Your task to perform on an android device: read, delete, or share a saved page in the chrome app Image 0: 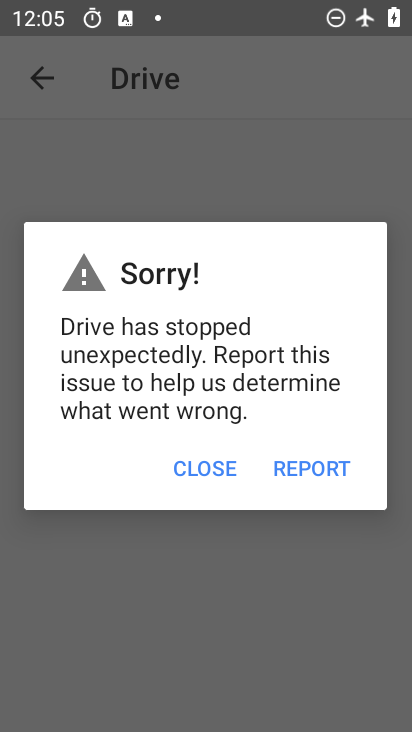
Step 0: press home button
Your task to perform on an android device: read, delete, or share a saved page in the chrome app Image 1: 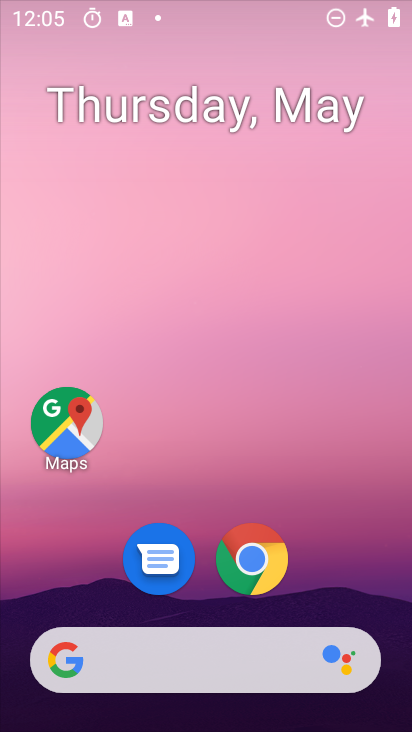
Step 1: drag from (178, 675) to (262, 303)
Your task to perform on an android device: read, delete, or share a saved page in the chrome app Image 2: 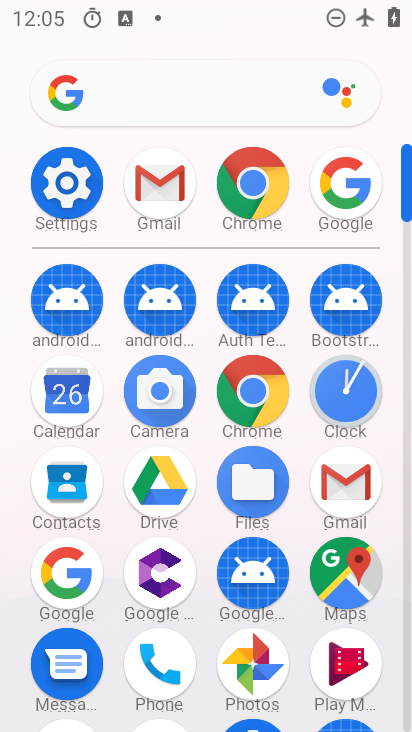
Step 2: click (256, 395)
Your task to perform on an android device: read, delete, or share a saved page in the chrome app Image 3: 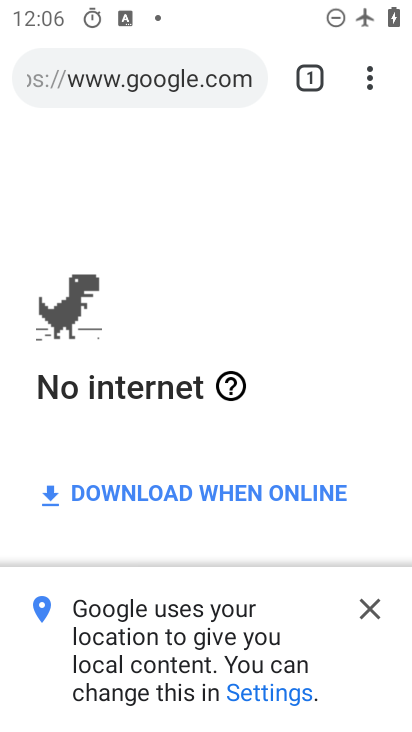
Step 3: click (373, 80)
Your task to perform on an android device: read, delete, or share a saved page in the chrome app Image 4: 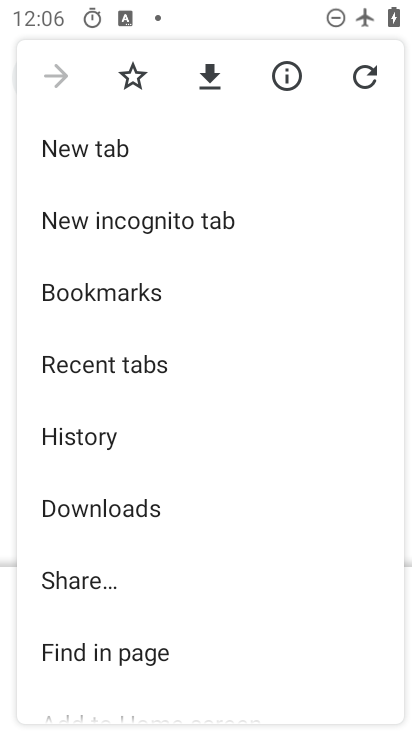
Step 4: click (150, 511)
Your task to perform on an android device: read, delete, or share a saved page in the chrome app Image 5: 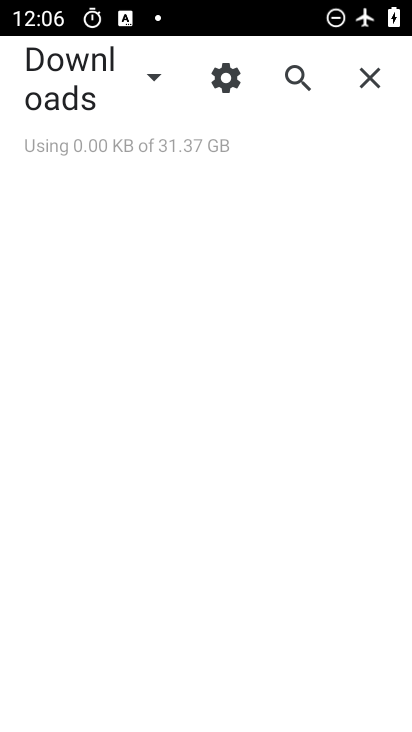
Step 5: click (141, 80)
Your task to perform on an android device: read, delete, or share a saved page in the chrome app Image 6: 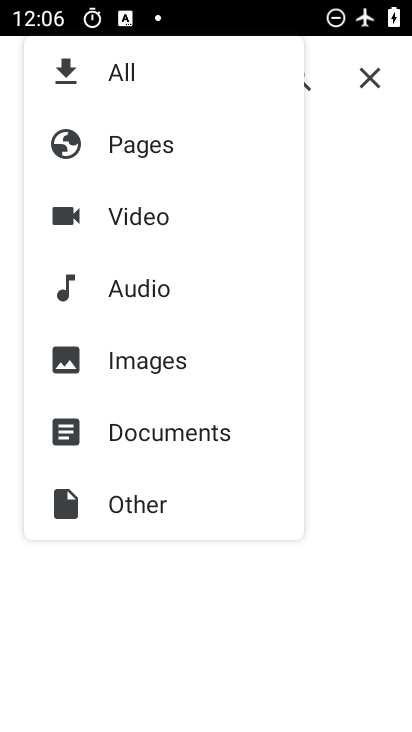
Step 6: click (149, 151)
Your task to perform on an android device: read, delete, or share a saved page in the chrome app Image 7: 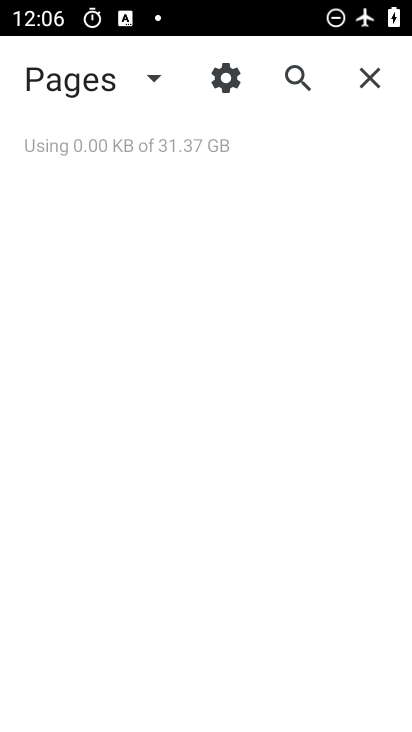
Step 7: task complete